Your task to perform on an android device: Go to Google maps Image 0: 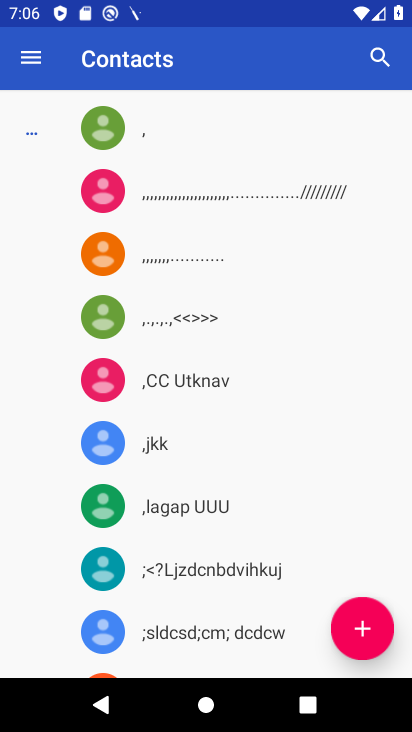
Step 0: press home button
Your task to perform on an android device: Go to Google maps Image 1: 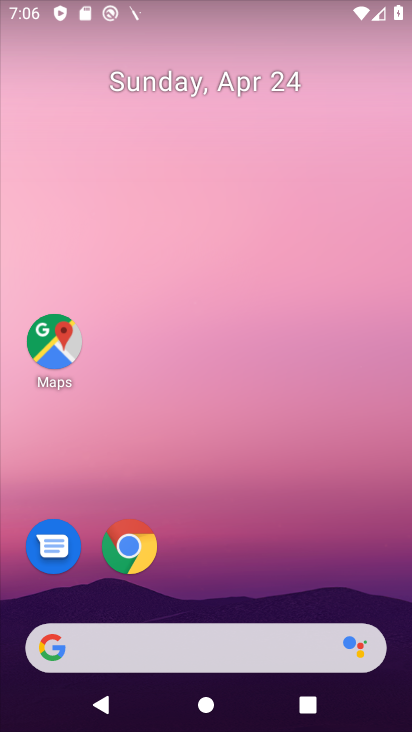
Step 1: click (51, 350)
Your task to perform on an android device: Go to Google maps Image 2: 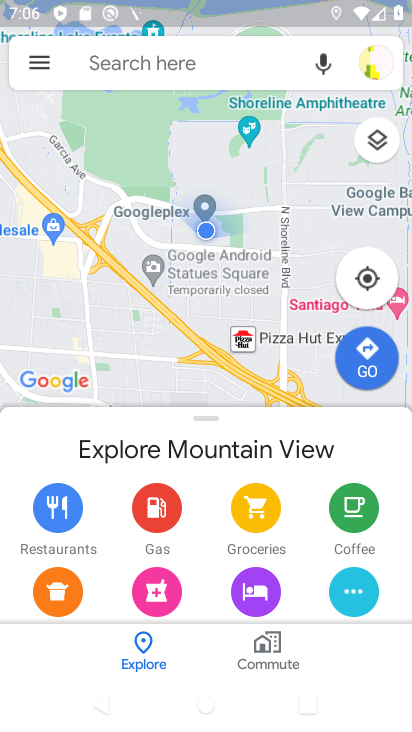
Step 2: task complete